Your task to perform on an android device: show emergency info Image 0: 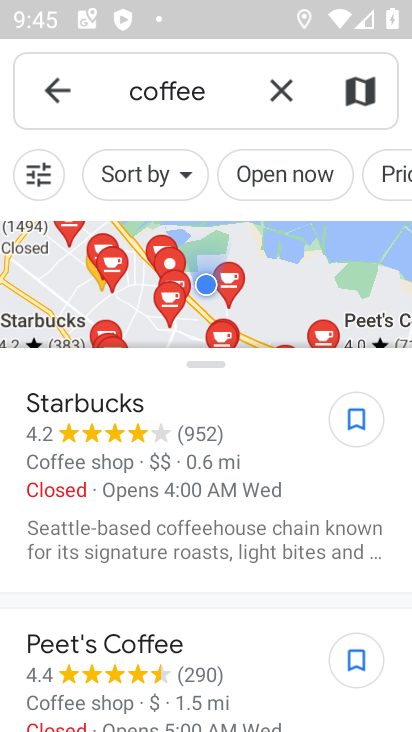
Step 0: press home button
Your task to perform on an android device: show emergency info Image 1: 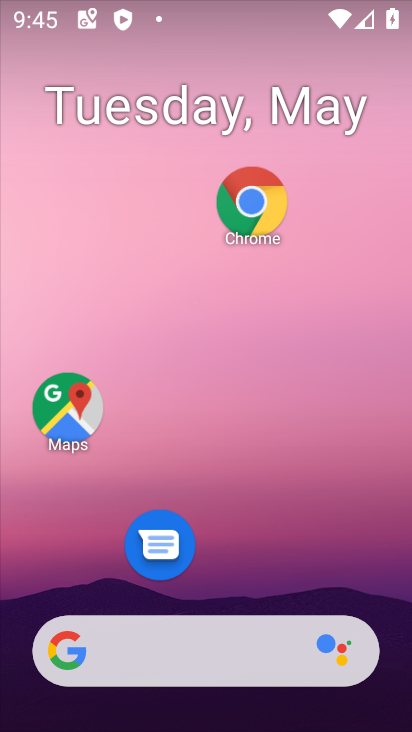
Step 1: drag from (401, 620) to (305, 107)
Your task to perform on an android device: show emergency info Image 2: 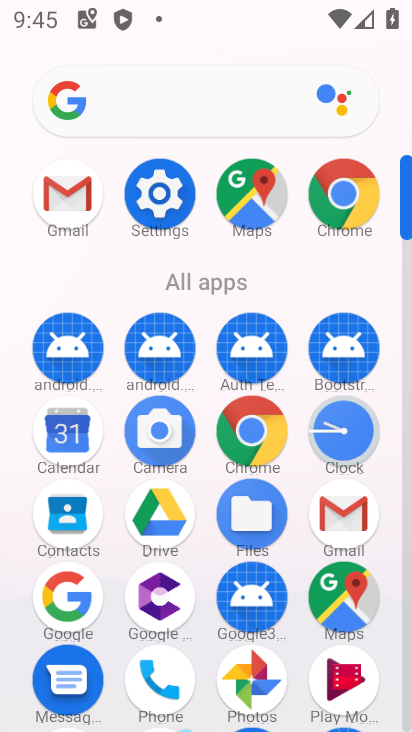
Step 2: click (151, 180)
Your task to perform on an android device: show emergency info Image 3: 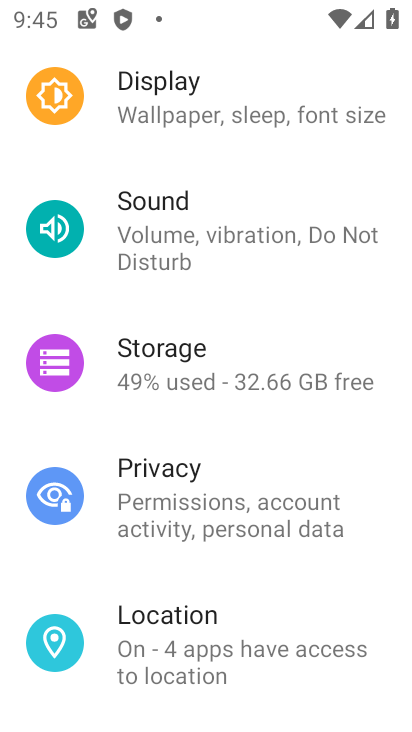
Step 3: drag from (254, 704) to (174, 22)
Your task to perform on an android device: show emergency info Image 4: 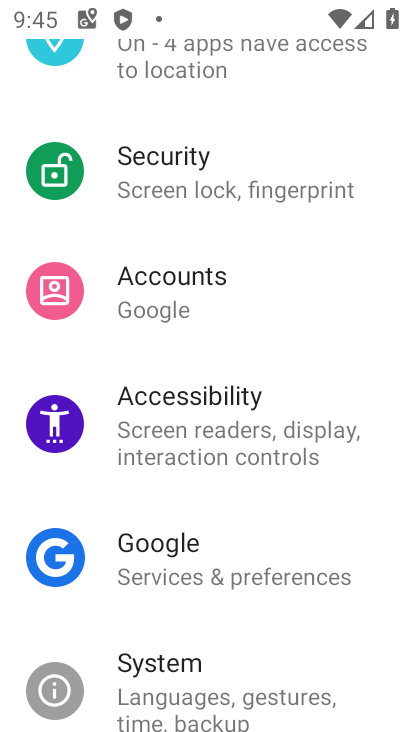
Step 4: drag from (215, 613) to (212, 182)
Your task to perform on an android device: show emergency info Image 5: 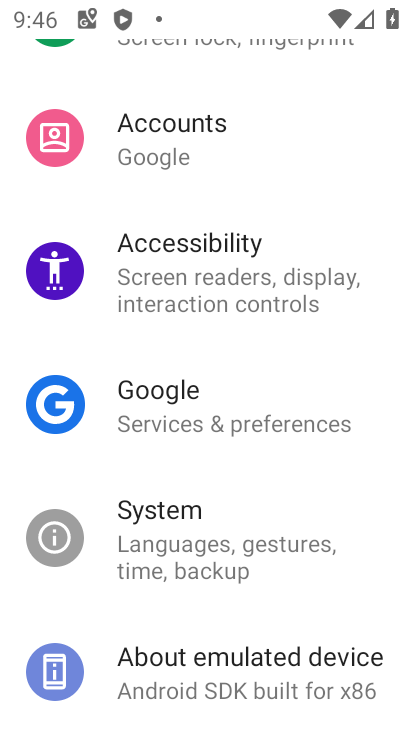
Step 5: click (267, 667)
Your task to perform on an android device: show emergency info Image 6: 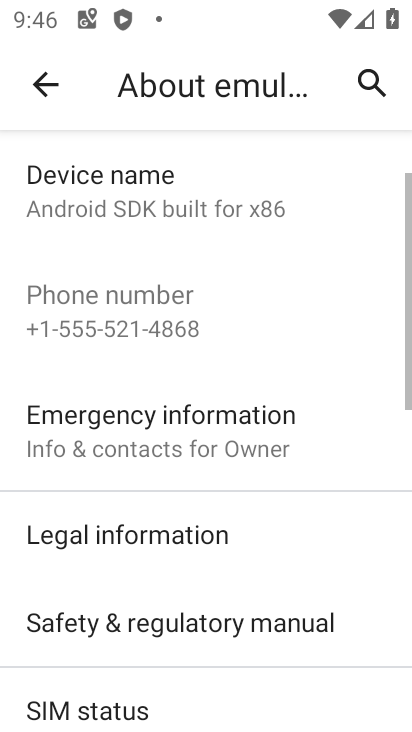
Step 6: drag from (267, 667) to (258, 580)
Your task to perform on an android device: show emergency info Image 7: 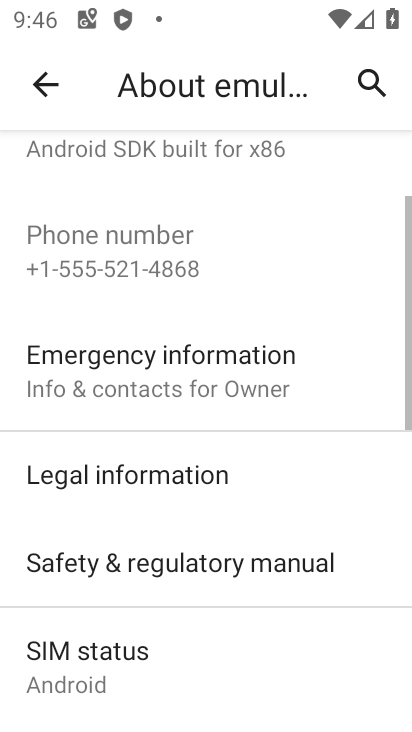
Step 7: click (232, 379)
Your task to perform on an android device: show emergency info Image 8: 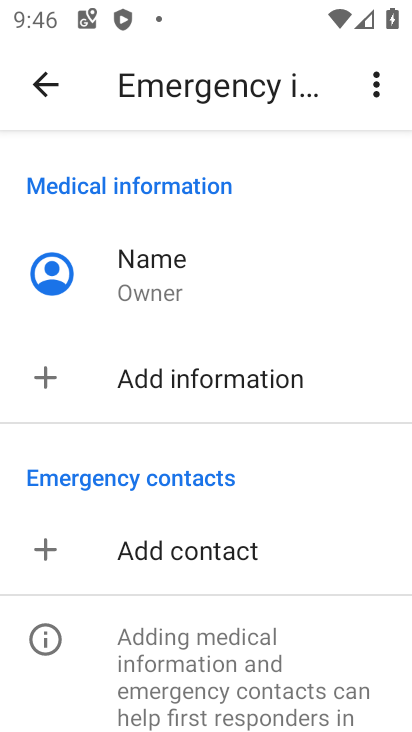
Step 8: task complete